Your task to perform on an android device: check data usage Image 0: 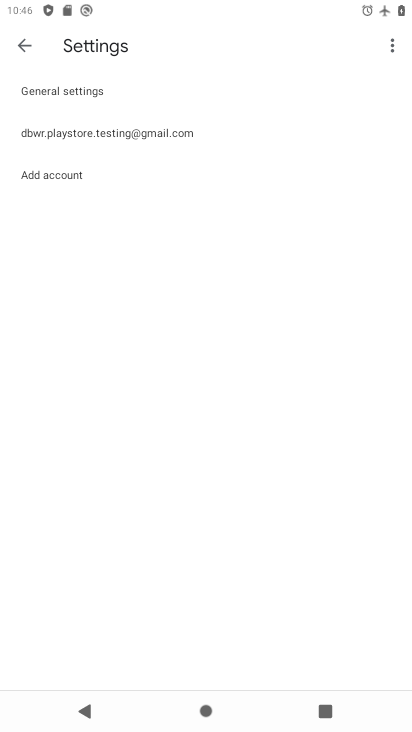
Step 0: press home button
Your task to perform on an android device: check data usage Image 1: 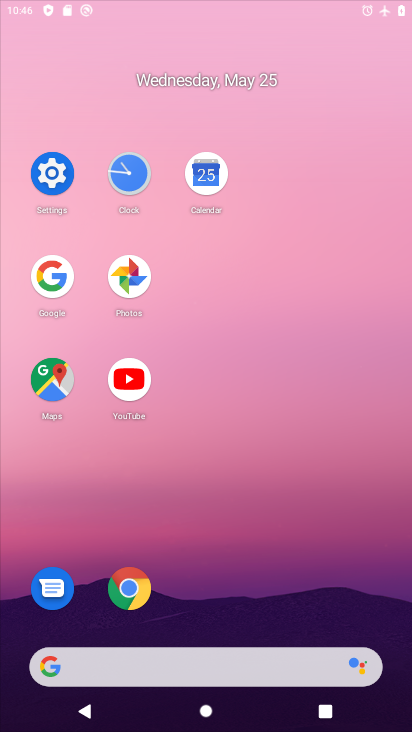
Step 1: click (43, 194)
Your task to perform on an android device: check data usage Image 2: 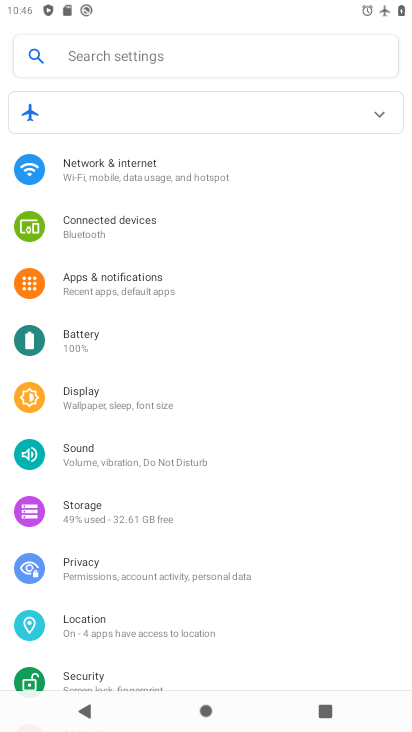
Step 2: click (211, 179)
Your task to perform on an android device: check data usage Image 3: 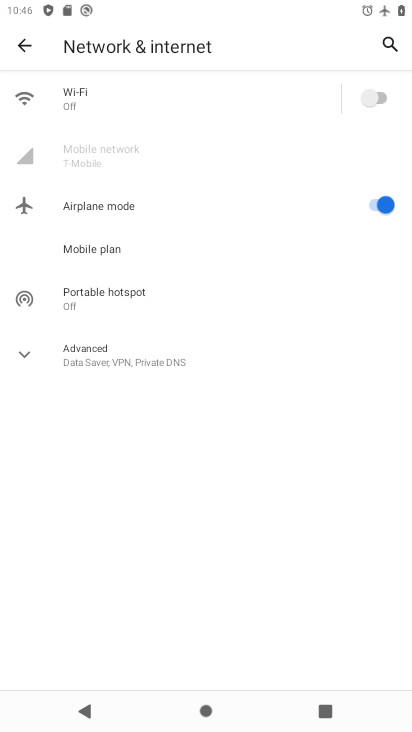
Step 3: click (381, 209)
Your task to perform on an android device: check data usage Image 4: 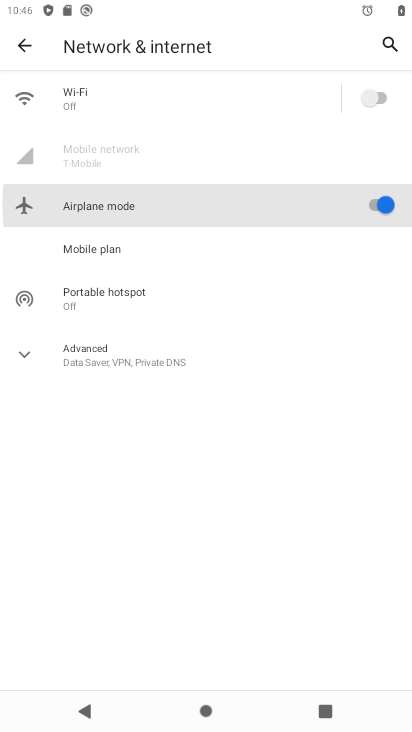
Step 4: click (375, 96)
Your task to perform on an android device: check data usage Image 5: 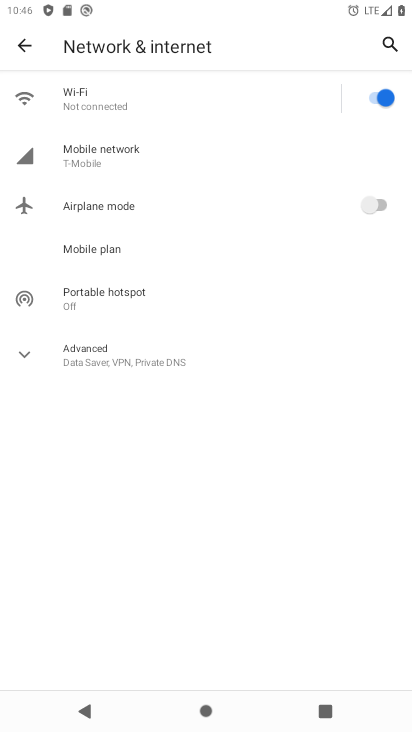
Step 5: click (168, 147)
Your task to perform on an android device: check data usage Image 6: 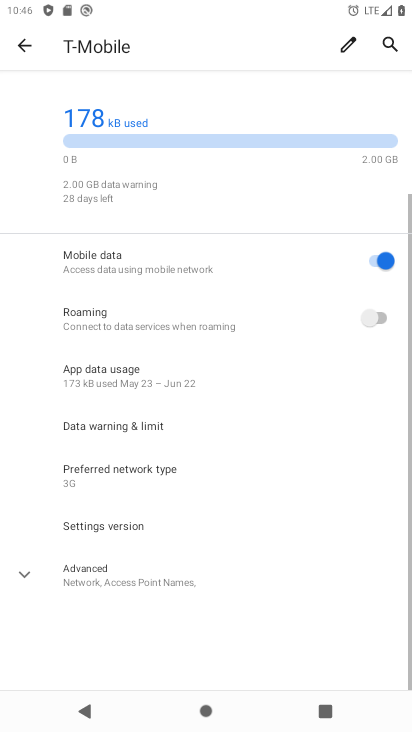
Step 6: task complete